Your task to perform on an android device: Open calendar and show me the first week of next month Image 0: 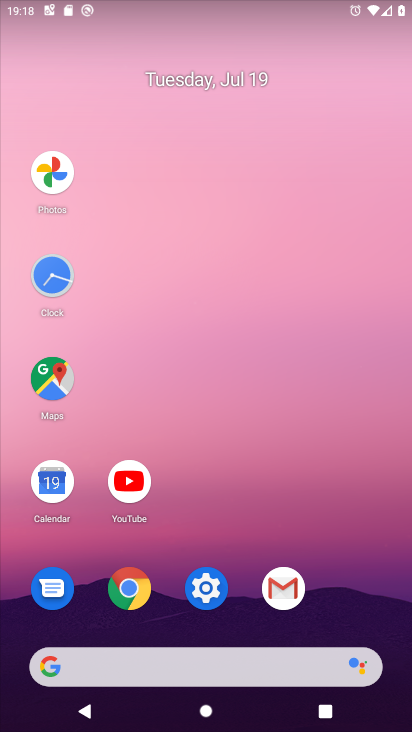
Step 0: click (42, 482)
Your task to perform on an android device: Open calendar and show me the first week of next month Image 1: 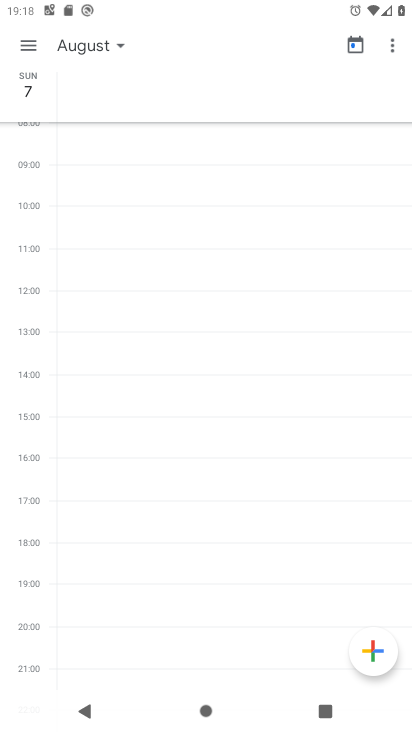
Step 1: click (23, 45)
Your task to perform on an android device: Open calendar and show me the first week of next month Image 2: 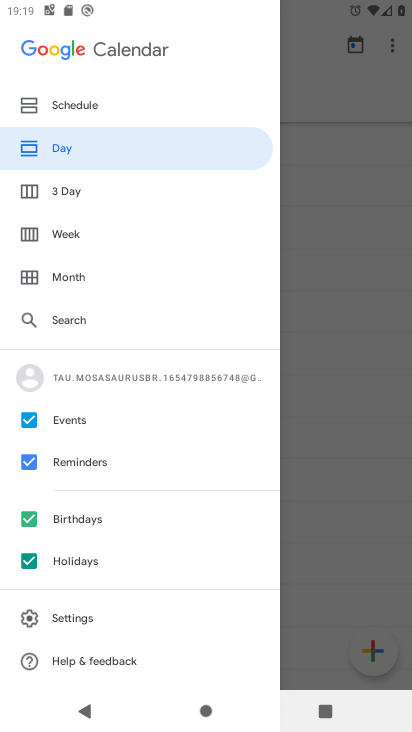
Step 2: click (64, 237)
Your task to perform on an android device: Open calendar and show me the first week of next month Image 3: 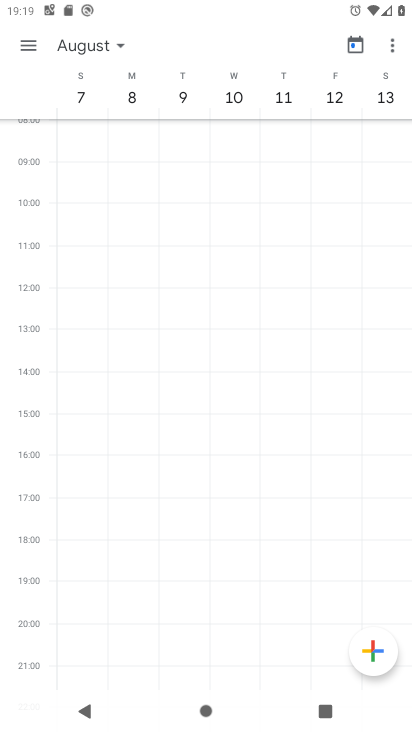
Step 3: click (114, 44)
Your task to perform on an android device: Open calendar and show me the first week of next month Image 4: 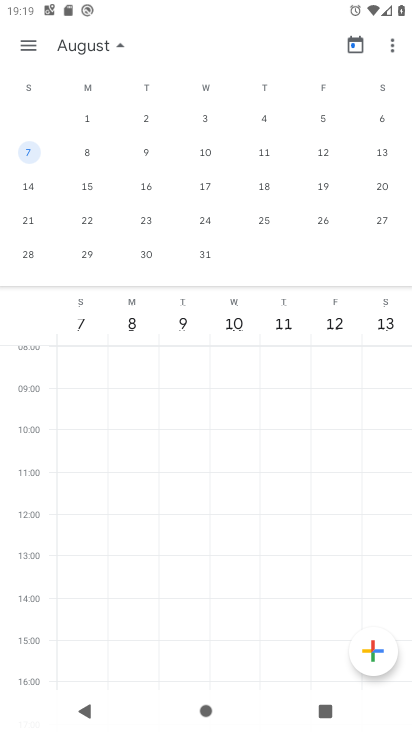
Step 4: click (89, 111)
Your task to perform on an android device: Open calendar and show me the first week of next month Image 5: 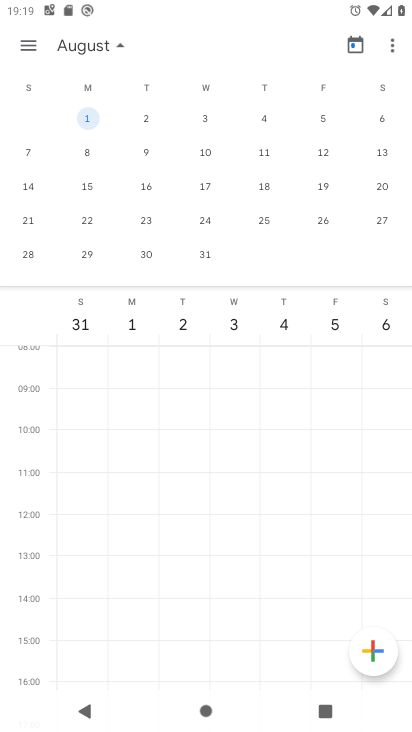
Step 5: task complete